Your task to perform on an android device: Play the new Ed Sheeran video on YouTube Image 0: 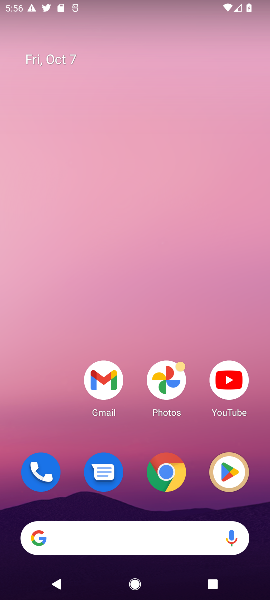
Step 0: click (232, 383)
Your task to perform on an android device: Play the new Ed Sheeran video on YouTube Image 1: 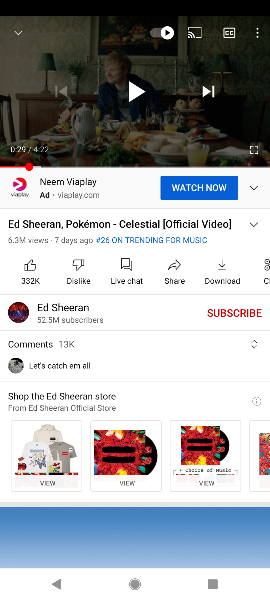
Step 1: click (21, 33)
Your task to perform on an android device: Play the new Ed Sheeran video on YouTube Image 2: 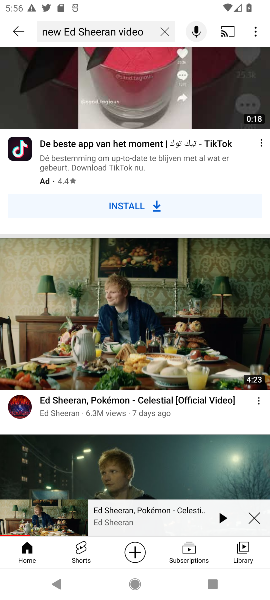
Step 2: click (161, 31)
Your task to perform on an android device: Play the new Ed Sheeran video on YouTube Image 3: 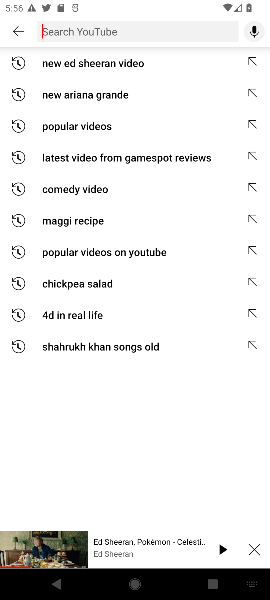
Step 3: click (139, 35)
Your task to perform on an android device: Play the new Ed Sheeran video on YouTube Image 4: 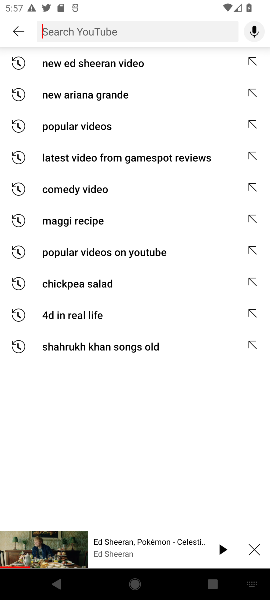
Step 4: type "new Ed Sheeran video"
Your task to perform on an android device: Play the new Ed Sheeran video on YouTube Image 5: 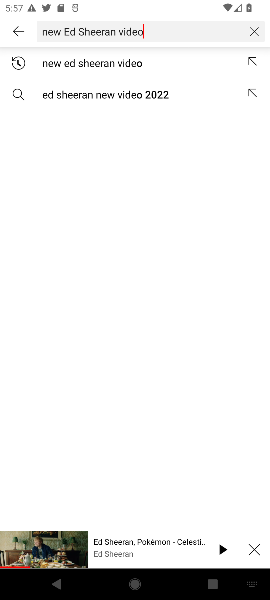
Step 5: type ""
Your task to perform on an android device: Play the new Ed Sheeran video on YouTube Image 6: 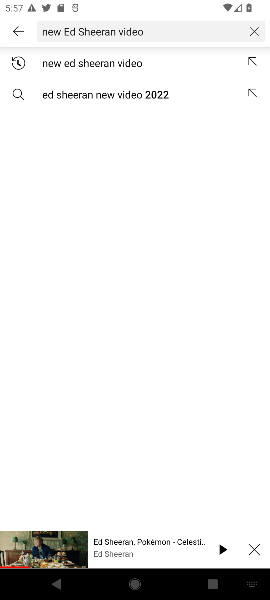
Step 6: press enter
Your task to perform on an android device: Play the new Ed Sheeran video on YouTube Image 7: 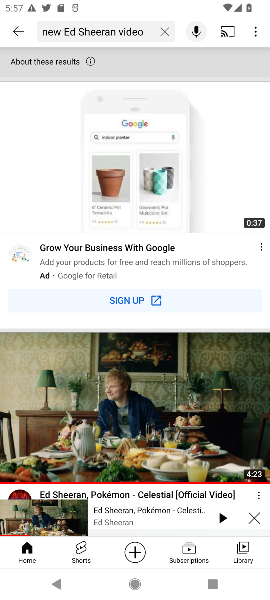
Step 7: click (155, 415)
Your task to perform on an android device: Play the new Ed Sheeran video on YouTube Image 8: 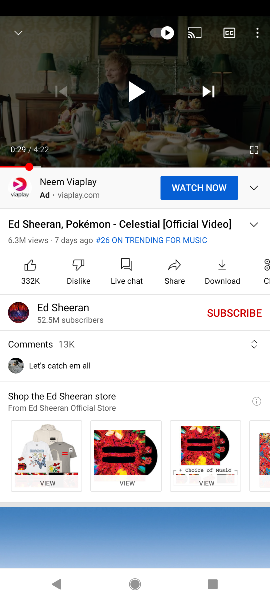
Step 8: click (134, 101)
Your task to perform on an android device: Play the new Ed Sheeran video on YouTube Image 9: 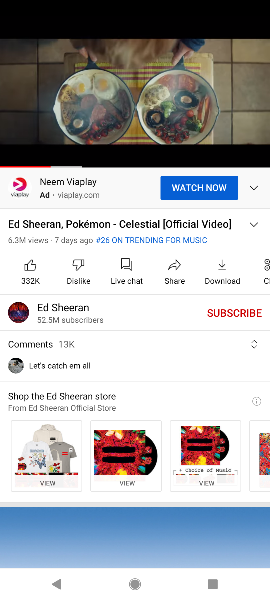
Step 9: task complete